Your task to perform on an android device: change the upload size in google photos Image 0: 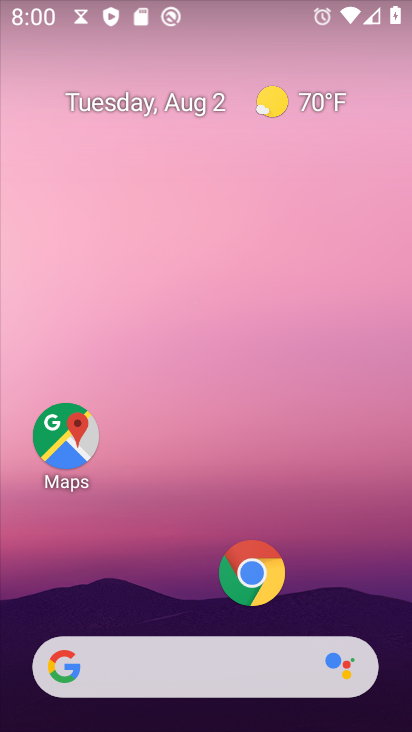
Step 0: press home button
Your task to perform on an android device: change the upload size in google photos Image 1: 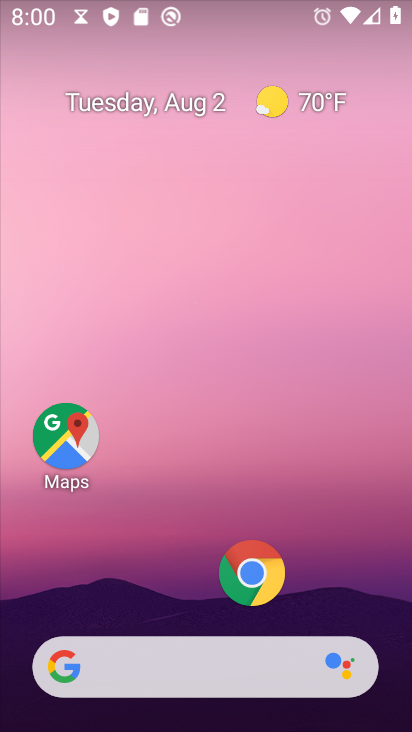
Step 1: drag from (190, 610) to (225, 65)
Your task to perform on an android device: change the upload size in google photos Image 2: 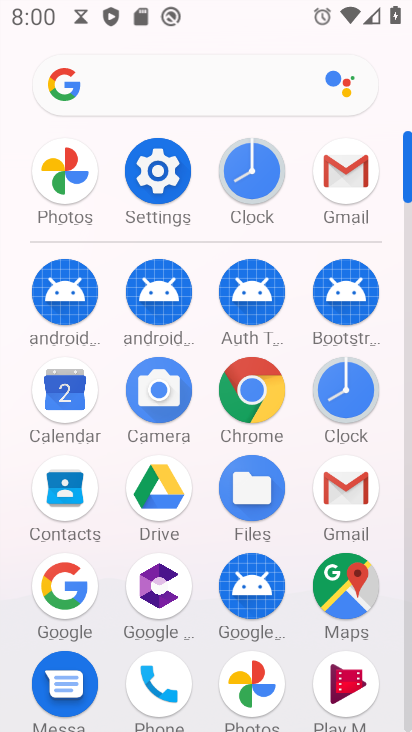
Step 2: click (61, 163)
Your task to perform on an android device: change the upload size in google photos Image 3: 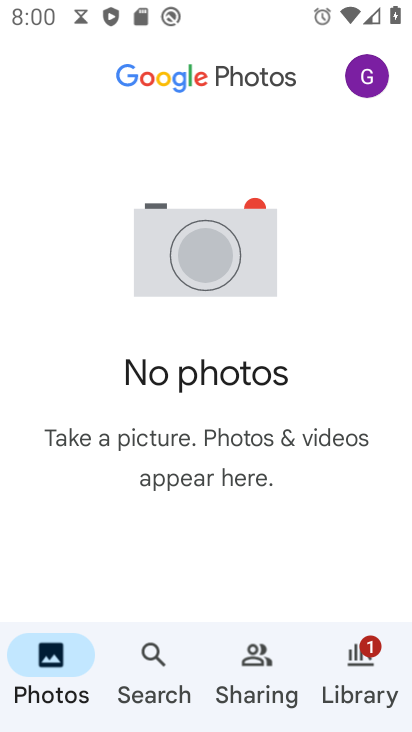
Step 3: click (362, 72)
Your task to perform on an android device: change the upload size in google photos Image 4: 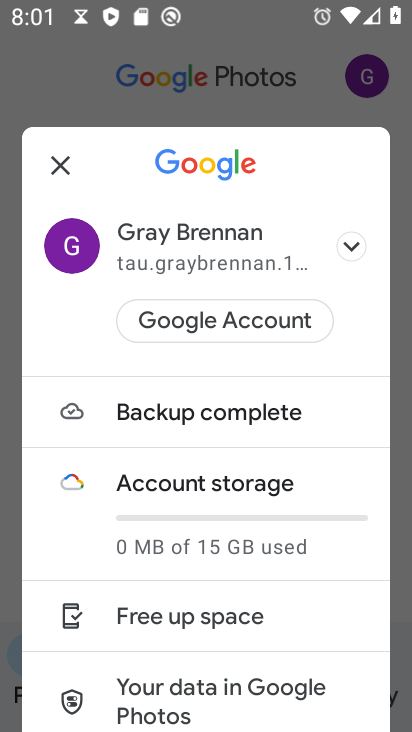
Step 4: click (145, 399)
Your task to perform on an android device: change the upload size in google photos Image 5: 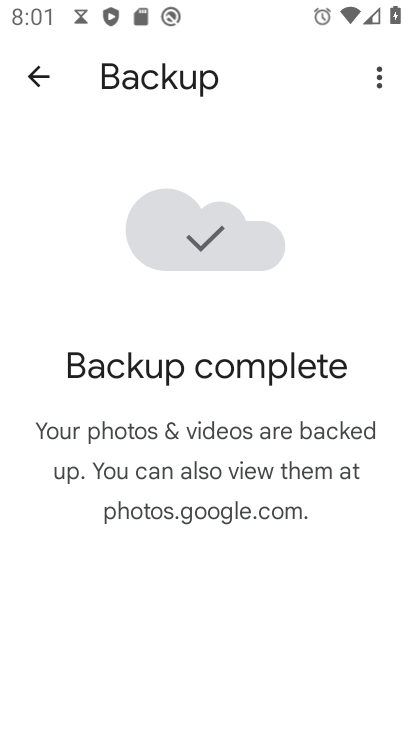
Step 5: click (372, 71)
Your task to perform on an android device: change the upload size in google photos Image 6: 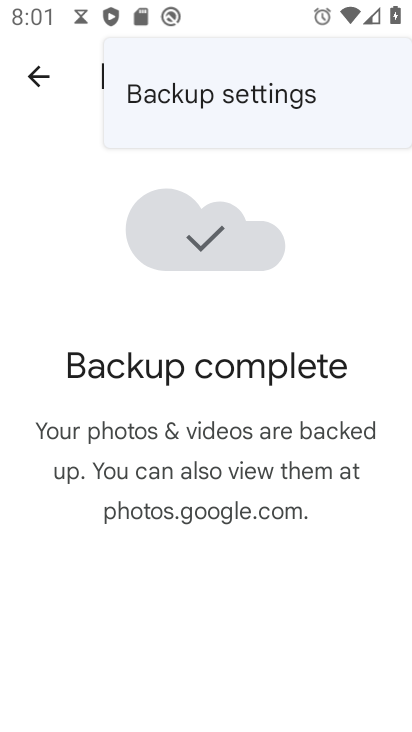
Step 6: click (221, 92)
Your task to perform on an android device: change the upload size in google photos Image 7: 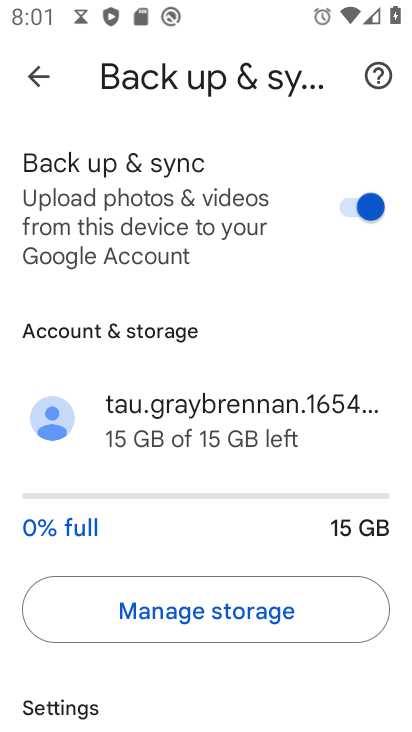
Step 7: drag from (217, 426) to (288, 49)
Your task to perform on an android device: change the upload size in google photos Image 8: 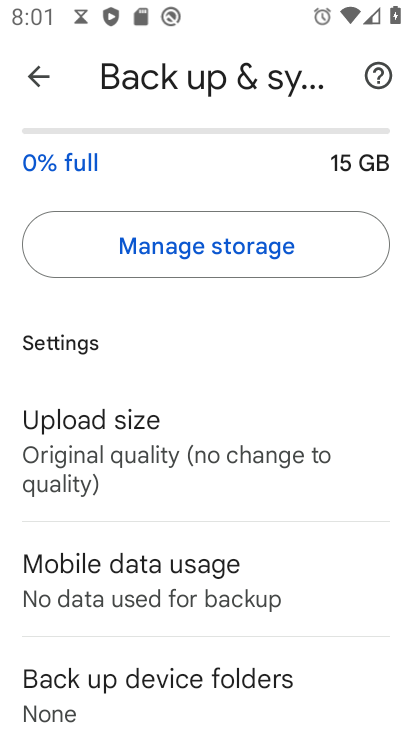
Step 8: click (193, 443)
Your task to perform on an android device: change the upload size in google photos Image 9: 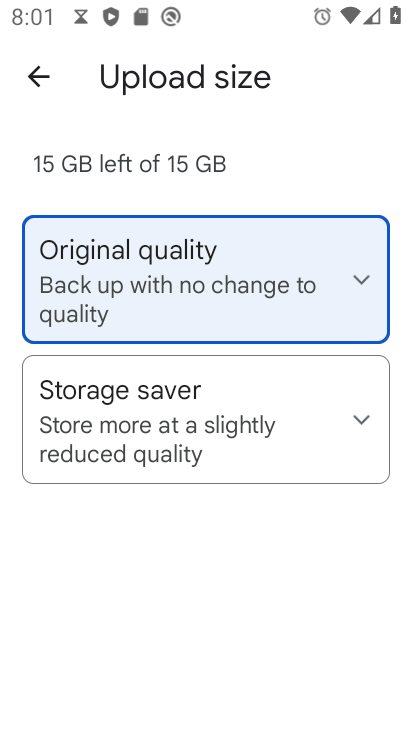
Step 9: click (198, 437)
Your task to perform on an android device: change the upload size in google photos Image 10: 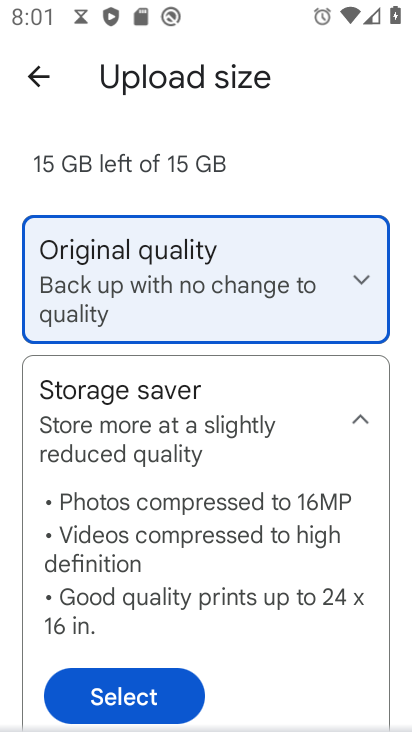
Step 10: click (113, 691)
Your task to perform on an android device: change the upload size in google photos Image 11: 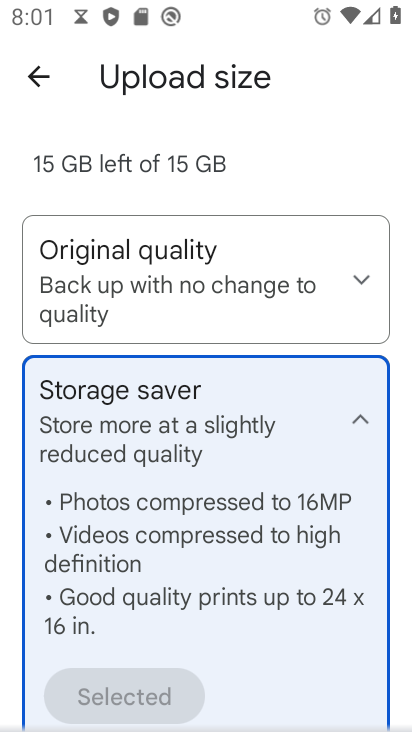
Step 11: task complete